Your task to perform on an android device: Is it going to rain tomorrow? Image 0: 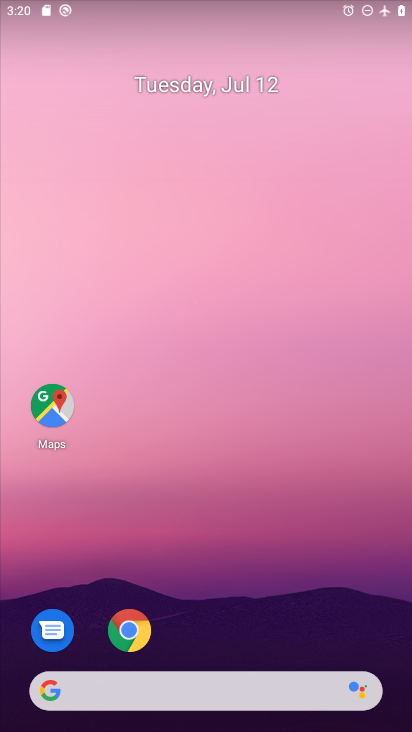
Step 0: drag from (191, 649) to (196, 148)
Your task to perform on an android device: Is it going to rain tomorrow? Image 1: 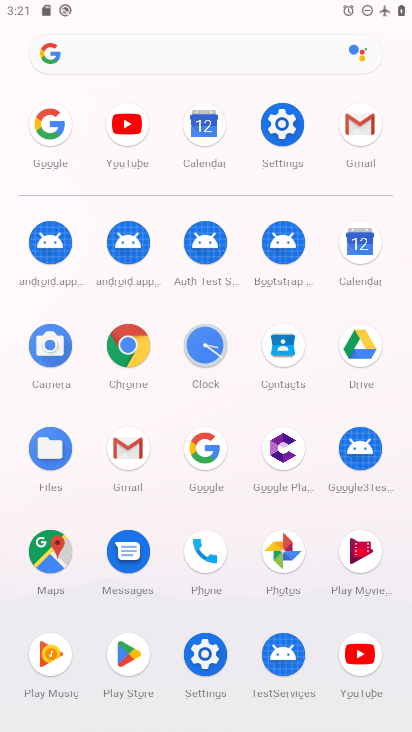
Step 1: click (65, 126)
Your task to perform on an android device: Is it going to rain tomorrow? Image 2: 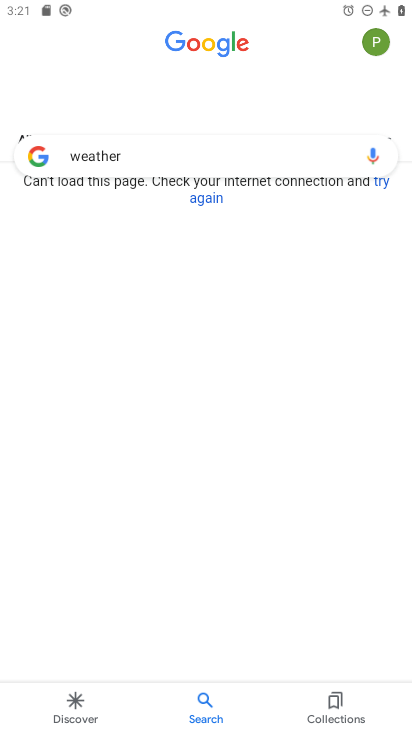
Step 2: click (202, 149)
Your task to perform on an android device: Is it going to rain tomorrow? Image 3: 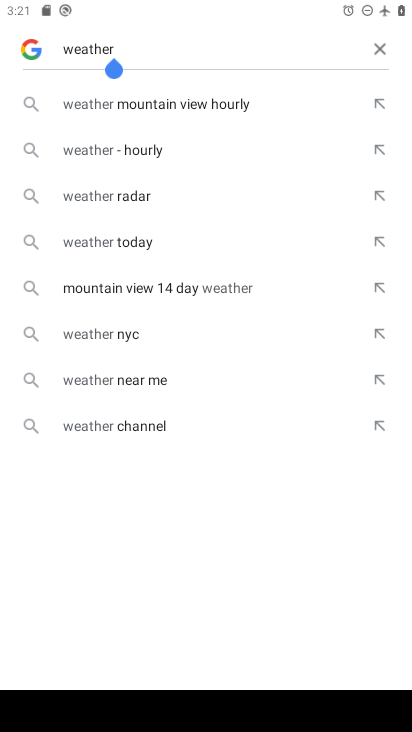
Step 3: click (377, 48)
Your task to perform on an android device: Is it going to rain tomorrow? Image 4: 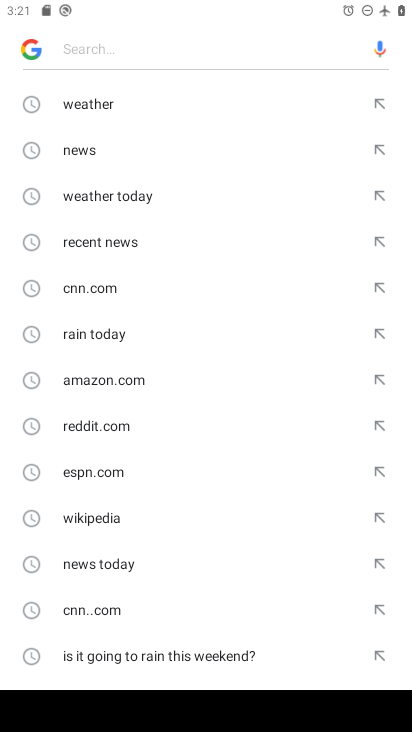
Step 4: click (116, 106)
Your task to perform on an android device: Is it going to rain tomorrow? Image 5: 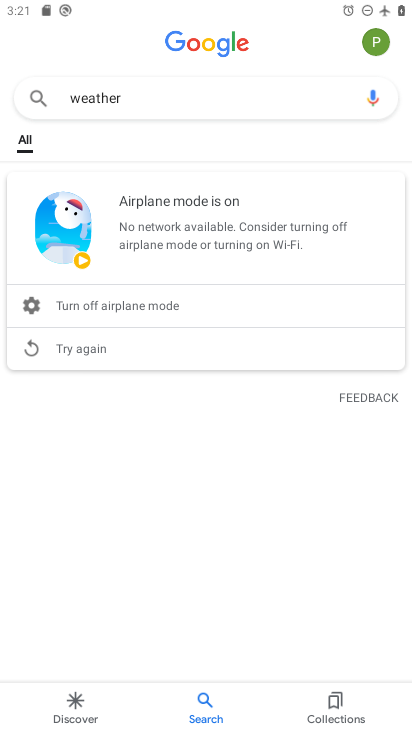
Step 5: task complete